Your task to perform on an android device: check out phone information Image 0: 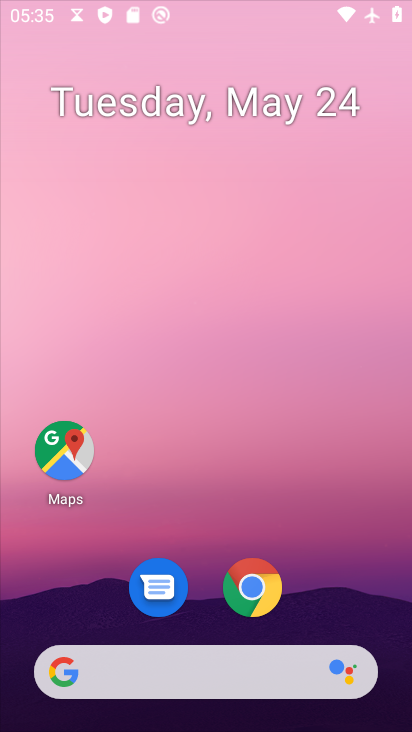
Step 0: click (250, 596)
Your task to perform on an android device: check out phone information Image 1: 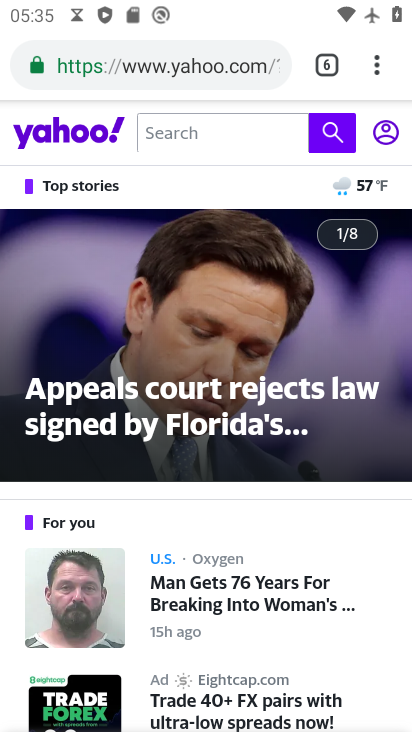
Step 1: press home button
Your task to perform on an android device: check out phone information Image 2: 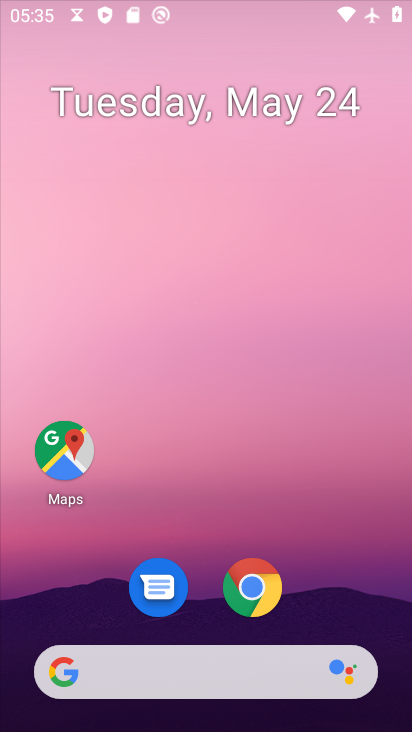
Step 2: drag from (337, 588) to (216, 33)
Your task to perform on an android device: check out phone information Image 3: 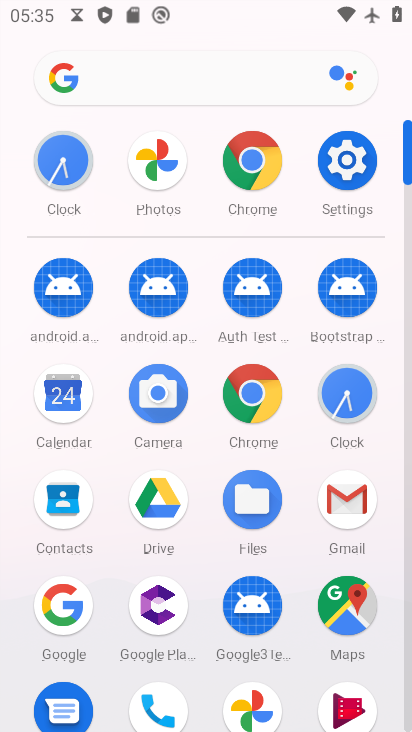
Step 3: click (352, 158)
Your task to perform on an android device: check out phone information Image 4: 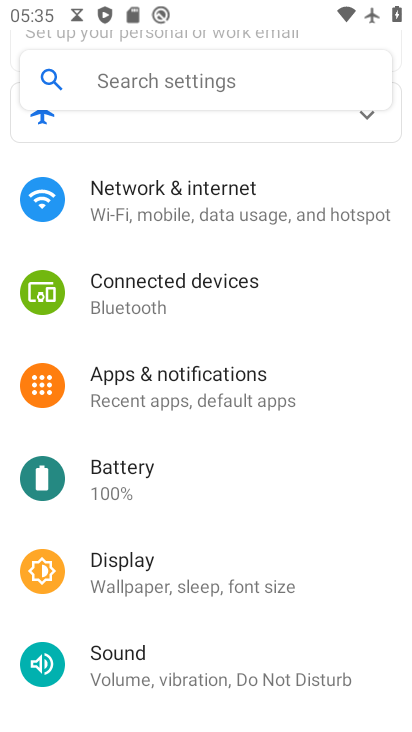
Step 4: drag from (259, 592) to (252, 69)
Your task to perform on an android device: check out phone information Image 5: 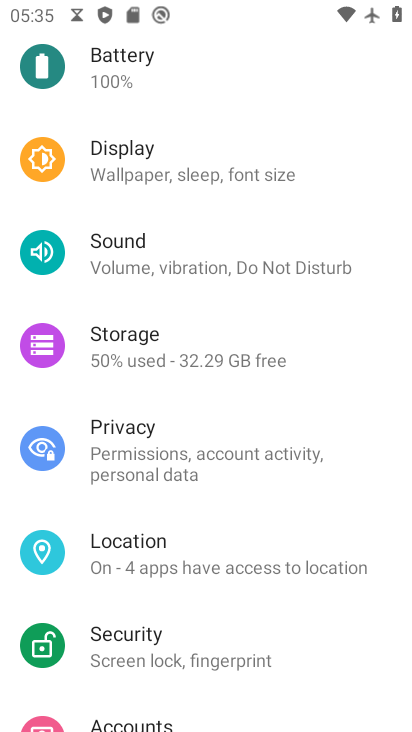
Step 5: drag from (190, 615) to (207, 96)
Your task to perform on an android device: check out phone information Image 6: 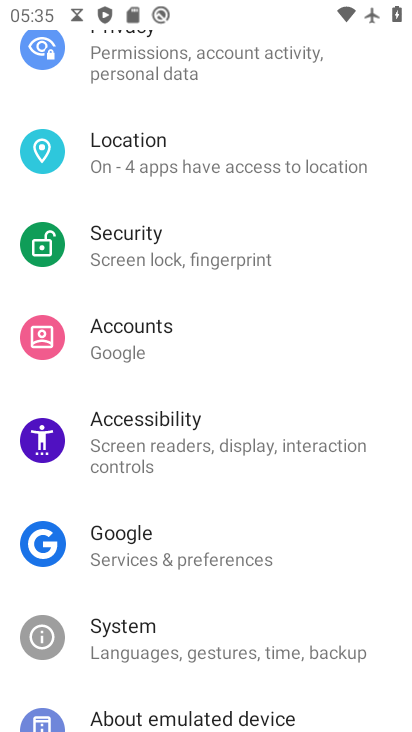
Step 6: drag from (190, 671) to (210, 171)
Your task to perform on an android device: check out phone information Image 7: 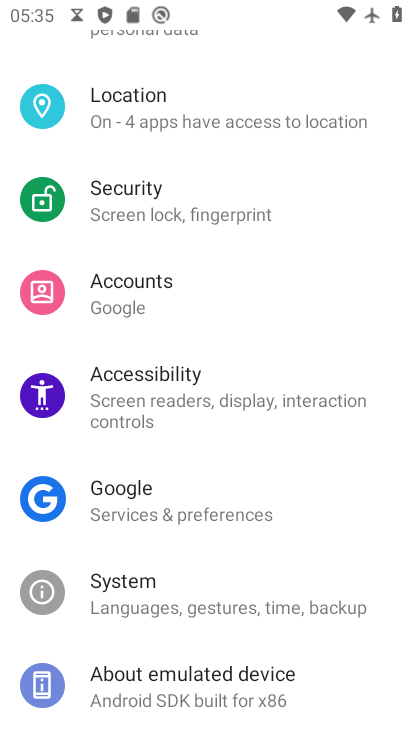
Step 7: click (182, 681)
Your task to perform on an android device: check out phone information Image 8: 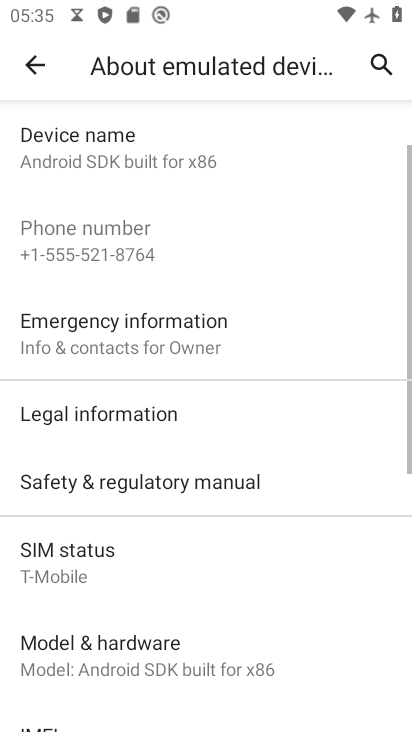
Step 8: task complete